Your task to perform on an android device: turn on improve location accuracy Image 0: 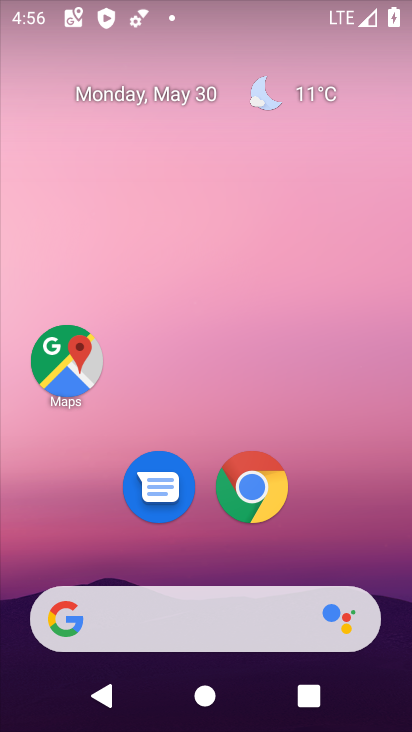
Step 0: drag from (387, 579) to (352, 70)
Your task to perform on an android device: turn on improve location accuracy Image 1: 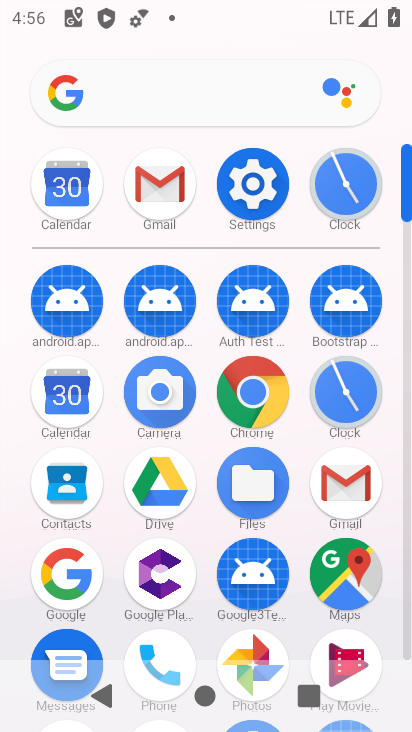
Step 1: click (410, 630)
Your task to perform on an android device: turn on improve location accuracy Image 2: 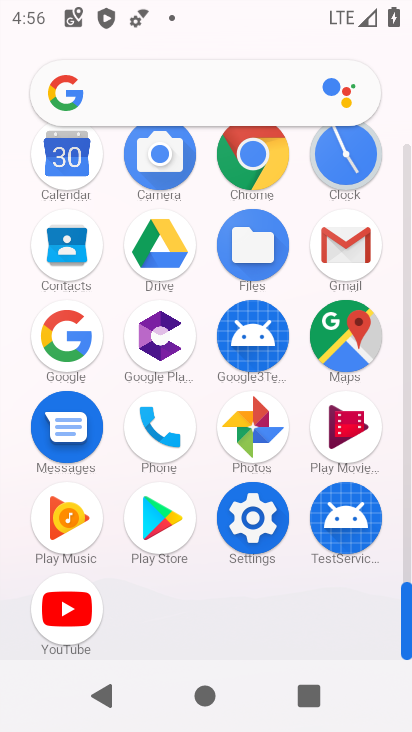
Step 2: click (255, 519)
Your task to perform on an android device: turn on improve location accuracy Image 3: 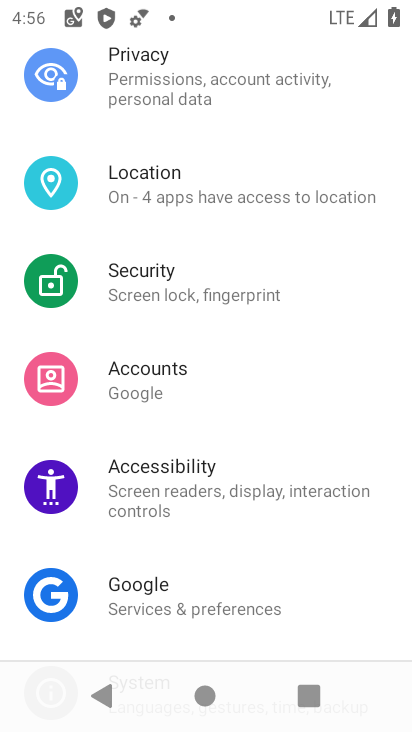
Step 3: click (144, 173)
Your task to perform on an android device: turn on improve location accuracy Image 4: 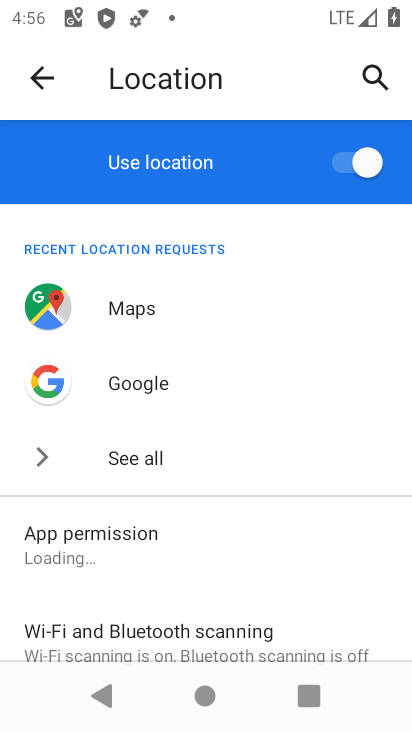
Step 4: drag from (307, 629) to (290, 206)
Your task to perform on an android device: turn on improve location accuracy Image 5: 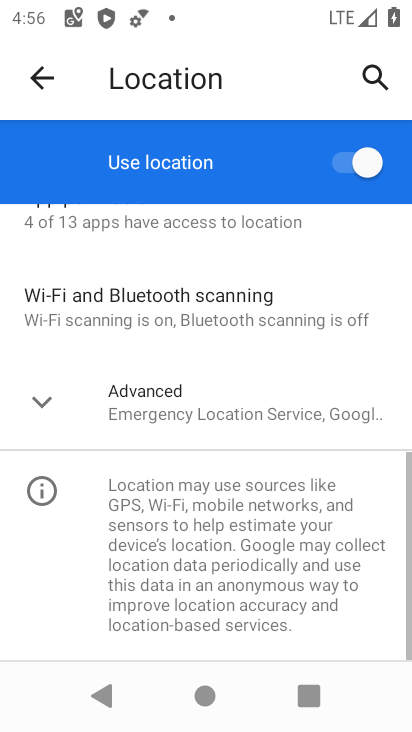
Step 5: click (35, 399)
Your task to perform on an android device: turn on improve location accuracy Image 6: 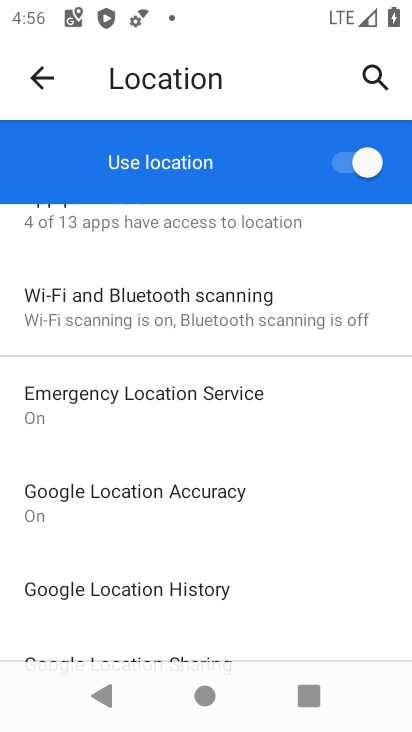
Step 6: click (77, 488)
Your task to perform on an android device: turn on improve location accuracy Image 7: 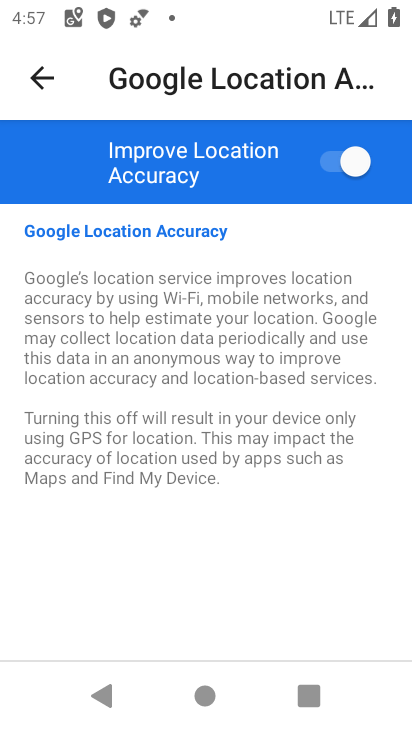
Step 7: task complete